Your task to perform on an android device: Open the Play Movies app and select the watchlist tab. Image 0: 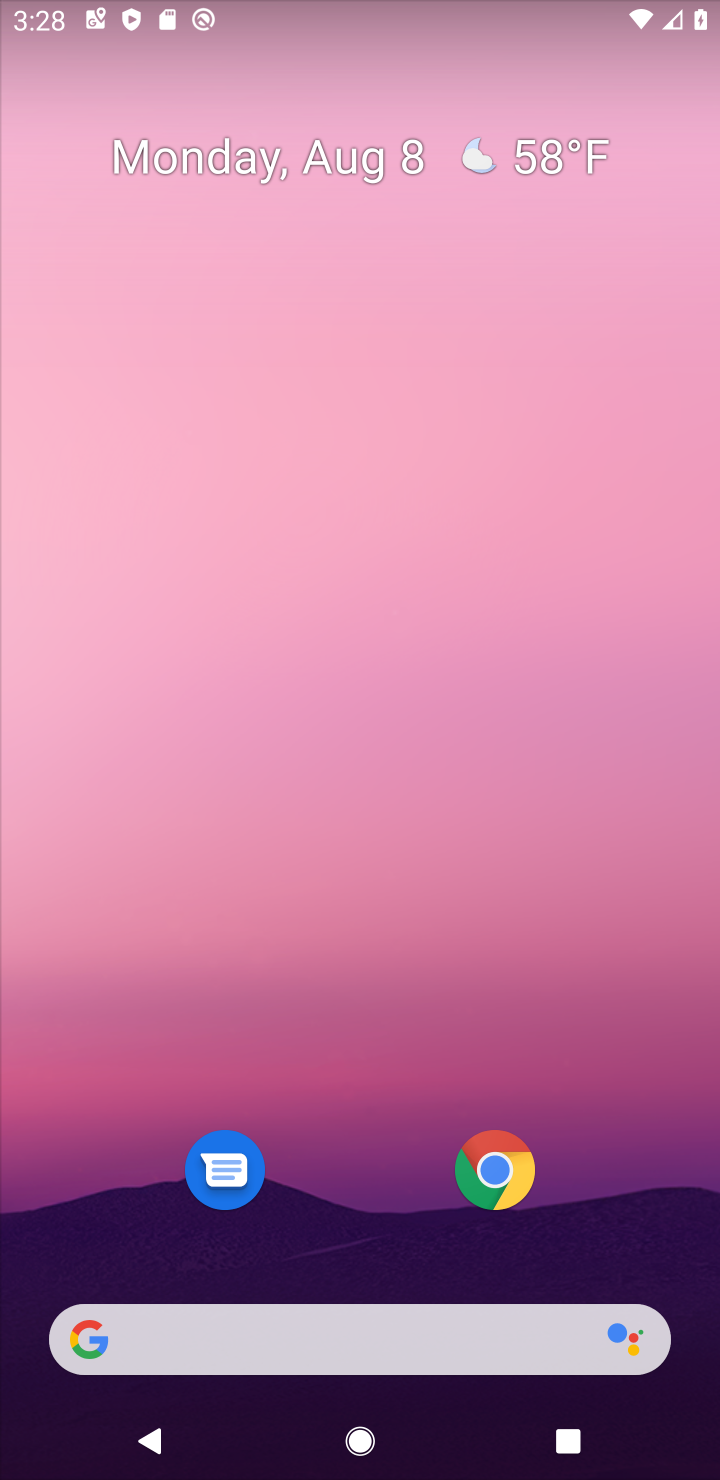
Step 0: press home button
Your task to perform on an android device: Open the Play Movies app and select the watchlist tab. Image 1: 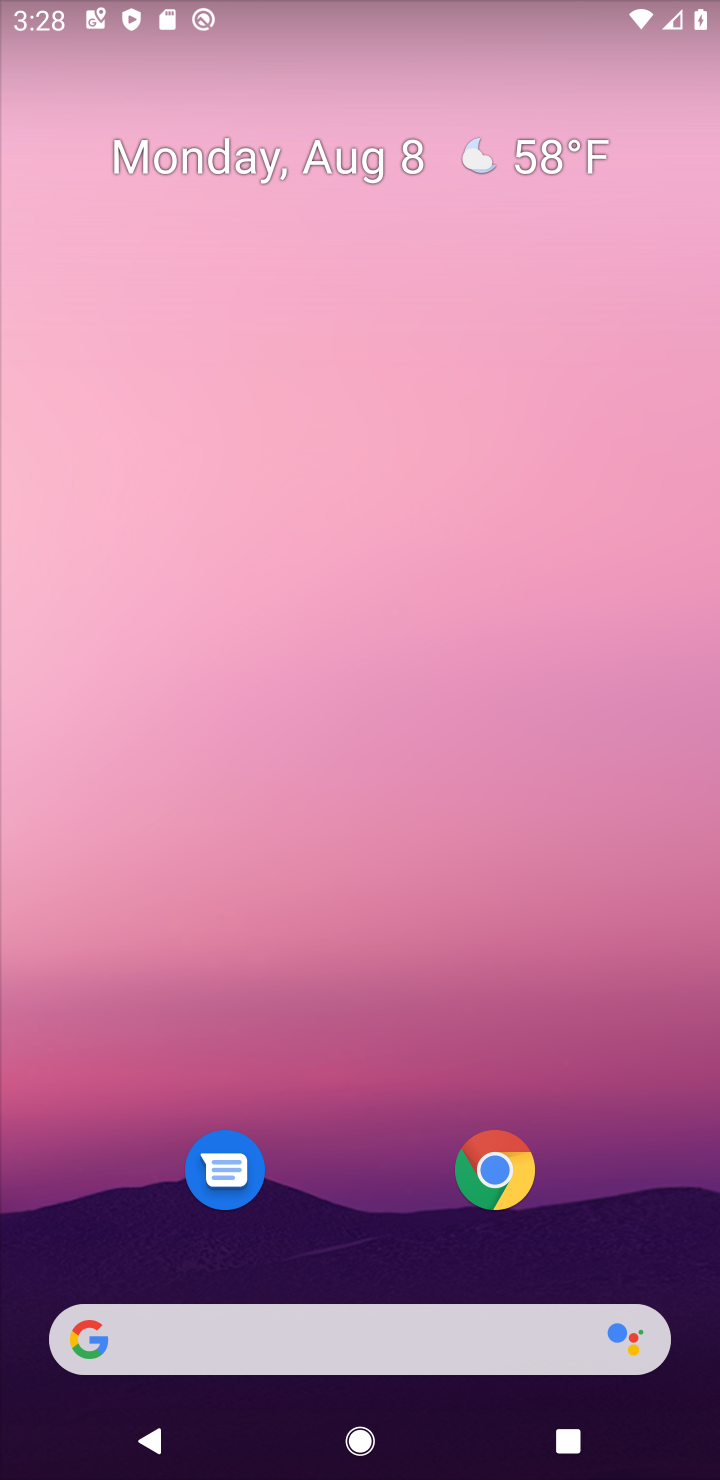
Step 1: drag from (389, 840) to (427, 465)
Your task to perform on an android device: Open the Play Movies app and select the watchlist tab. Image 2: 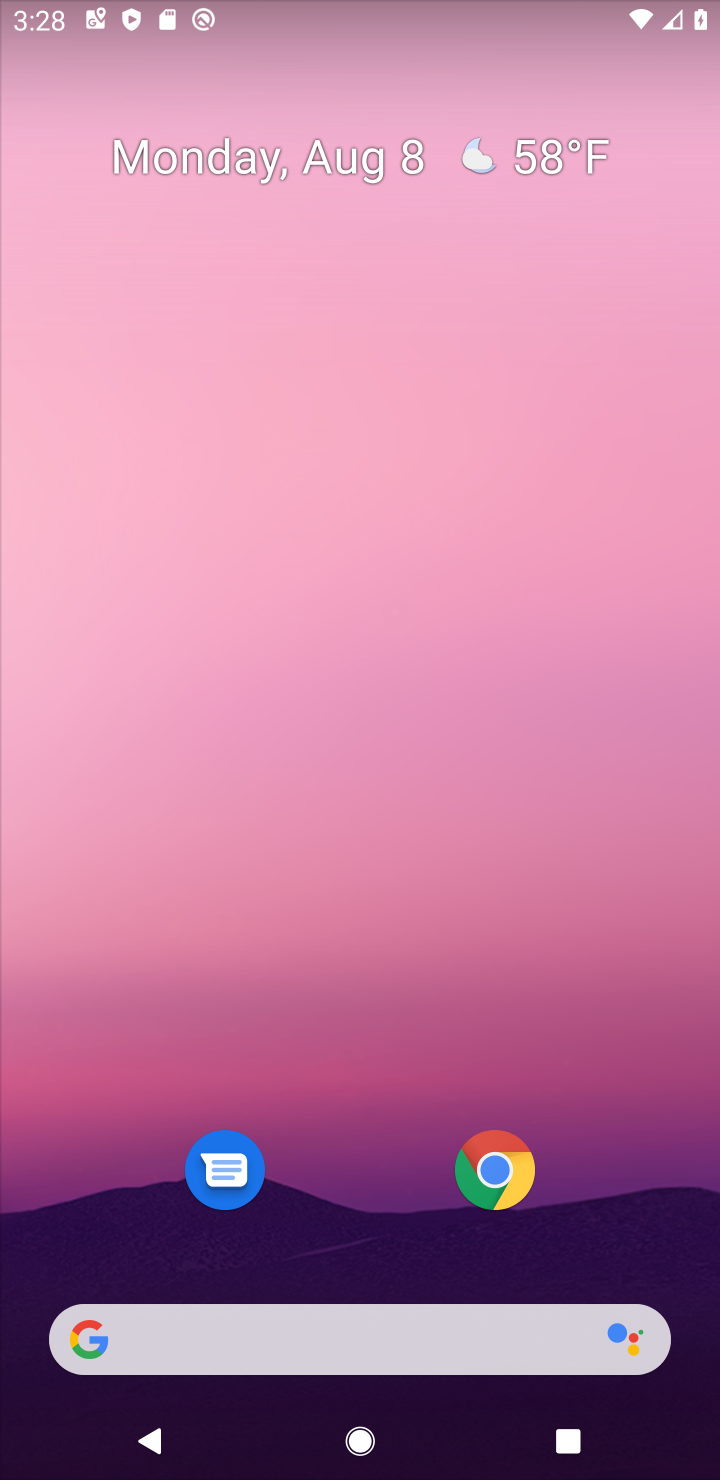
Step 2: drag from (349, 1144) to (349, 273)
Your task to perform on an android device: Open the Play Movies app and select the watchlist tab. Image 3: 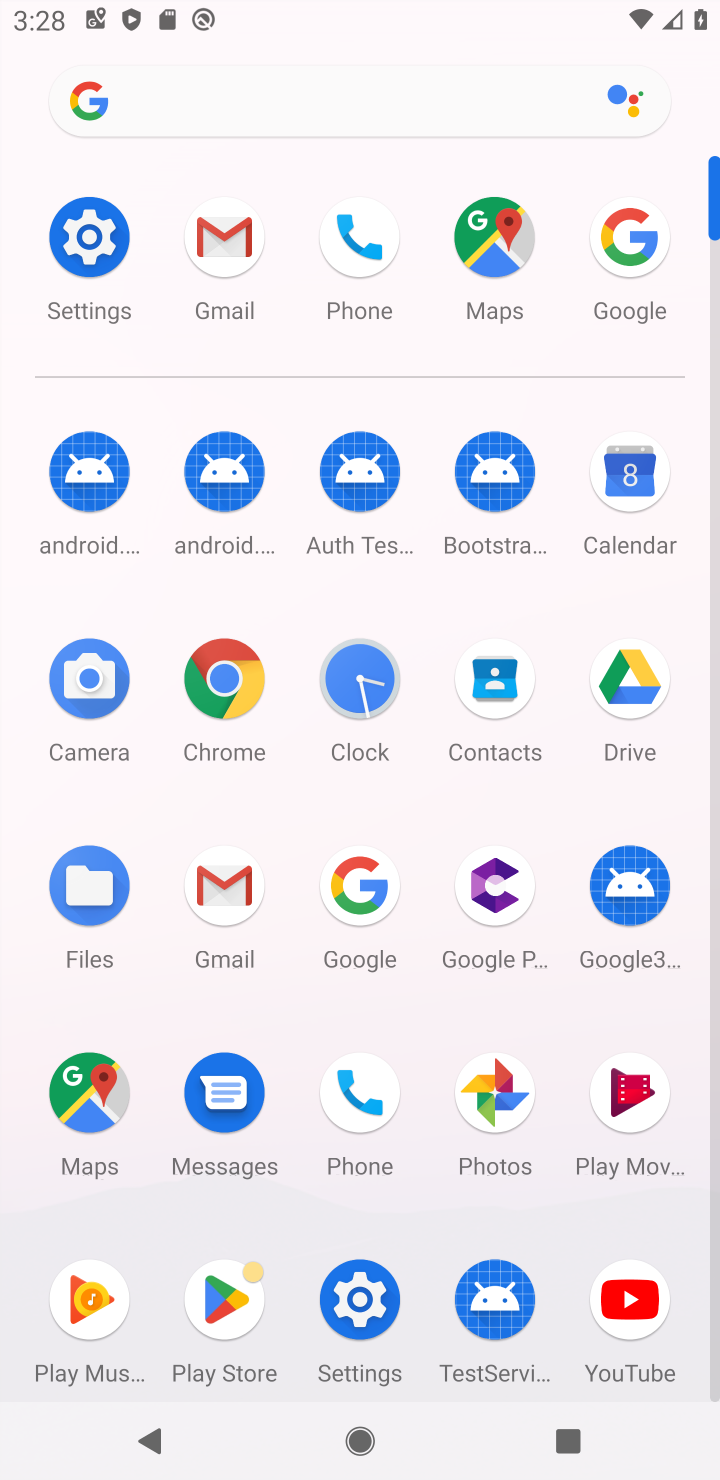
Step 3: click (613, 1098)
Your task to perform on an android device: Open the Play Movies app and select the watchlist tab. Image 4: 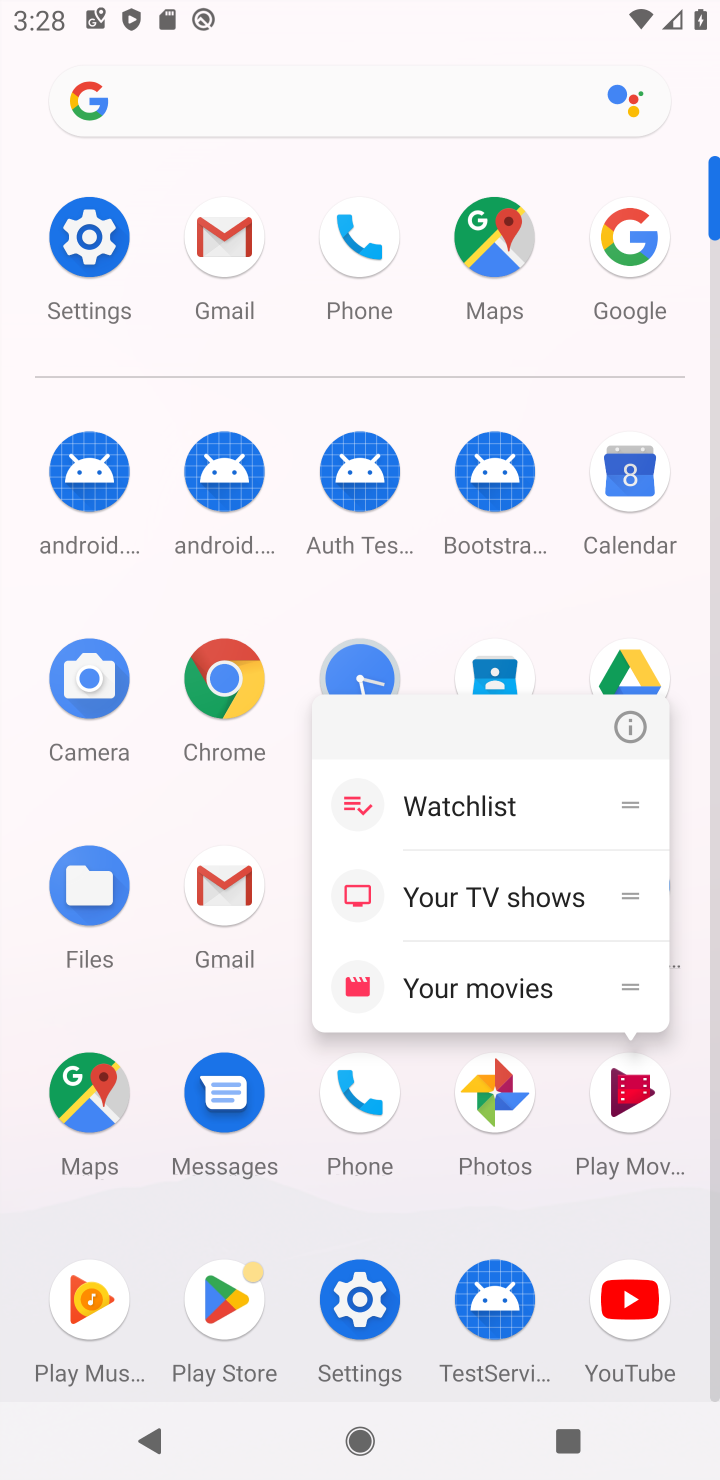
Step 4: click (601, 1123)
Your task to perform on an android device: Open the Play Movies app and select the watchlist tab. Image 5: 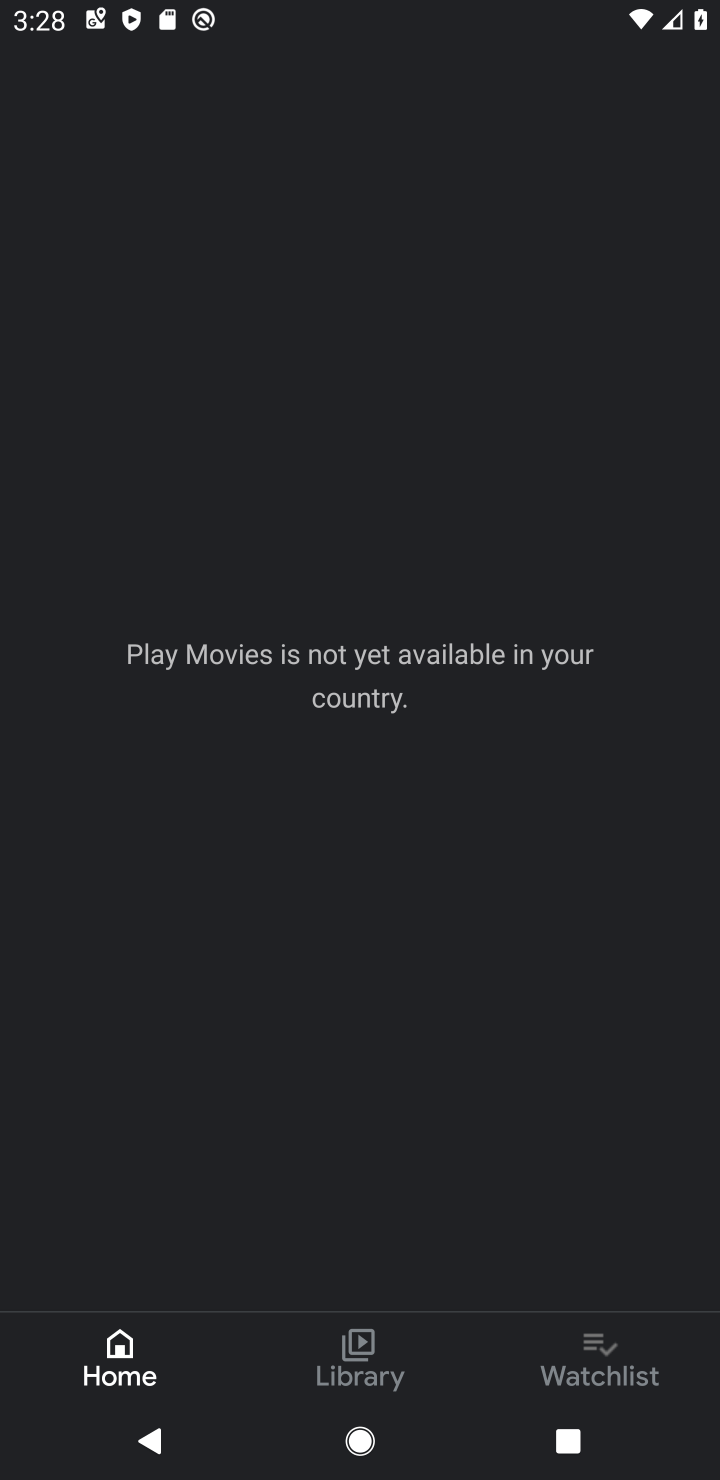
Step 5: click (582, 1319)
Your task to perform on an android device: Open the Play Movies app and select the watchlist tab. Image 6: 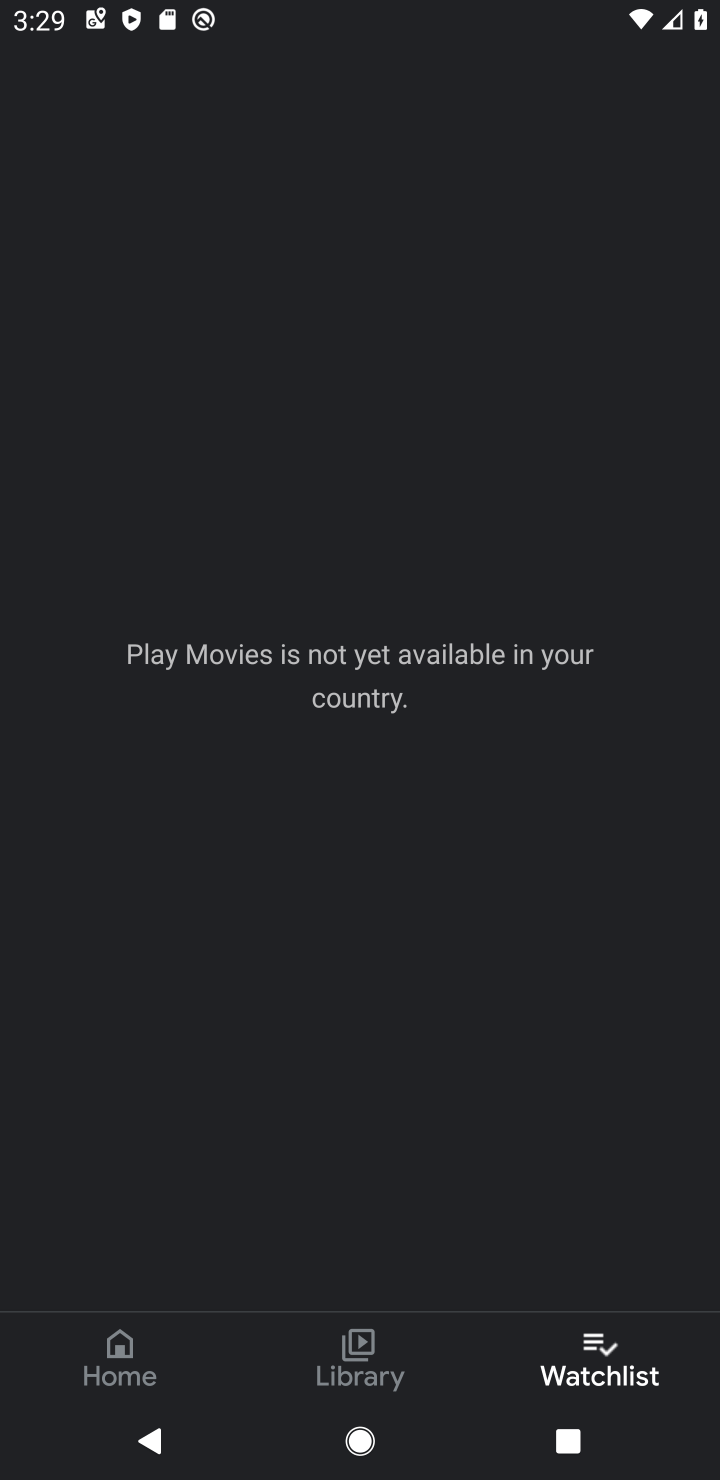
Step 6: task complete